Your task to perform on an android device: choose inbox layout in the gmail app Image 0: 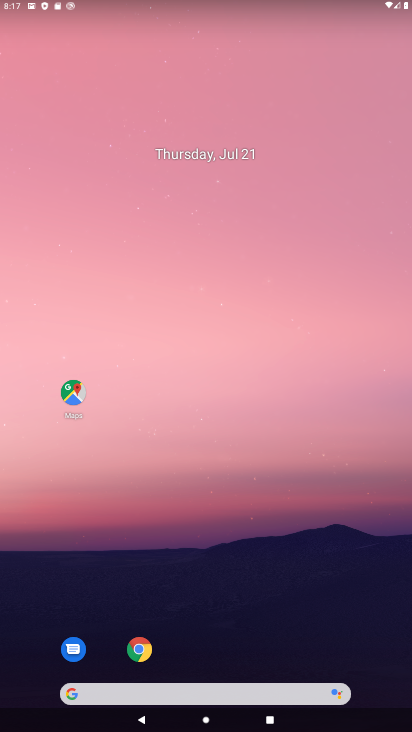
Step 0: drag from (314, 631) to (319, 107)
Your task to perform on an android device: choose inbox layout in the gmail app Image 1: 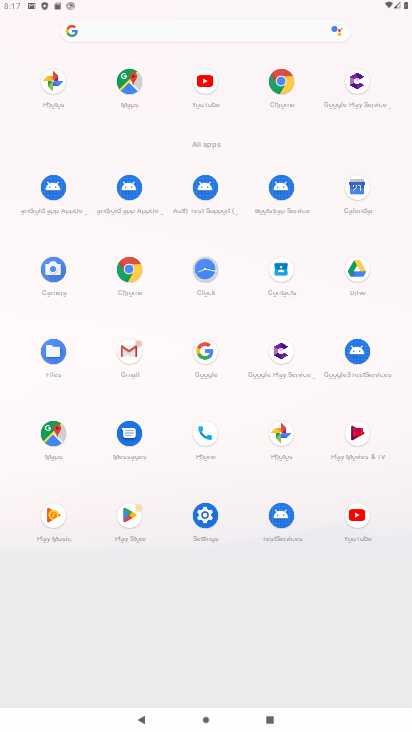
Step 1: click (125, 352)
Your task to perform on an android device: choose inbox layout in the gmail app Image 2: 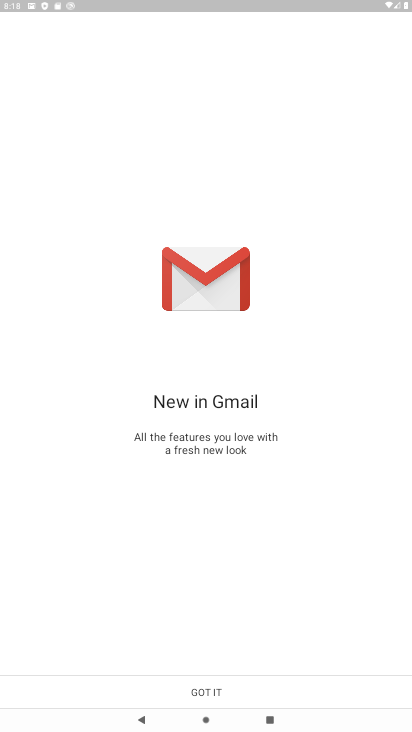
Step 2: click (195, 695)
Your task to perform on an android device: choose inbox layout in the gmail app Image 3: 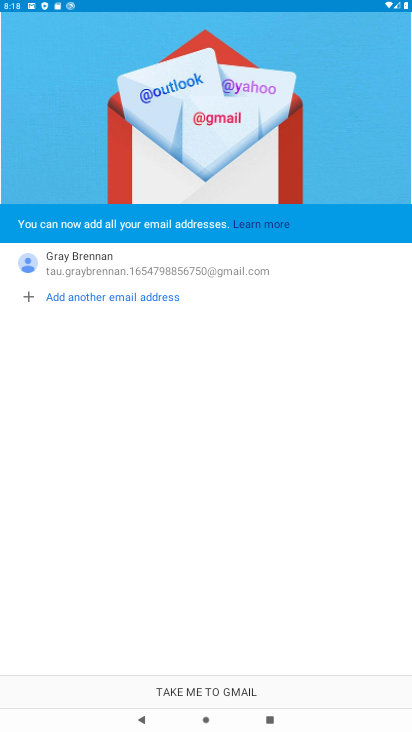
Step 3: click (184, 688)
Your task to perform on an android device: choose inbox layout in the gmail app Image 4: 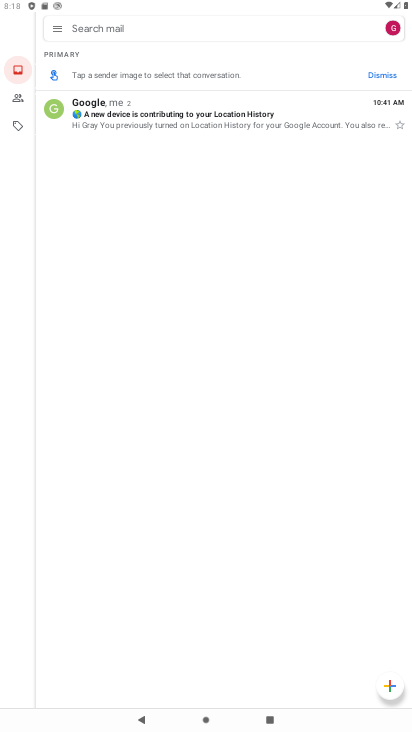
Step 4: click (56, 25)
Your task to perform on an android device: choose inbox layout in the gmail app Image 5: 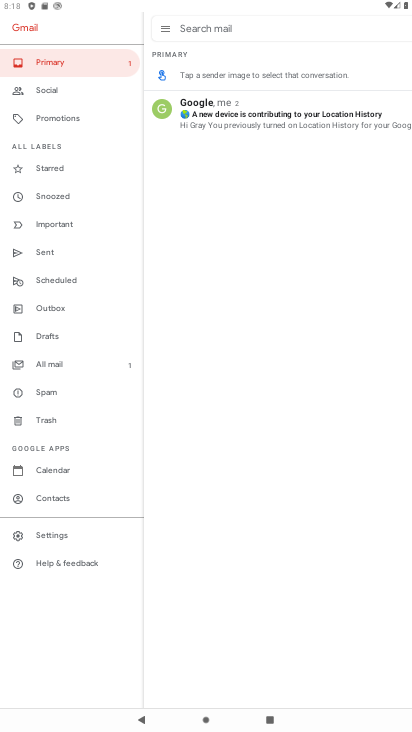
Step 5: click (39, 538)
Your task to perform on an android device: choose inbox layout in the gmail app Image 6: 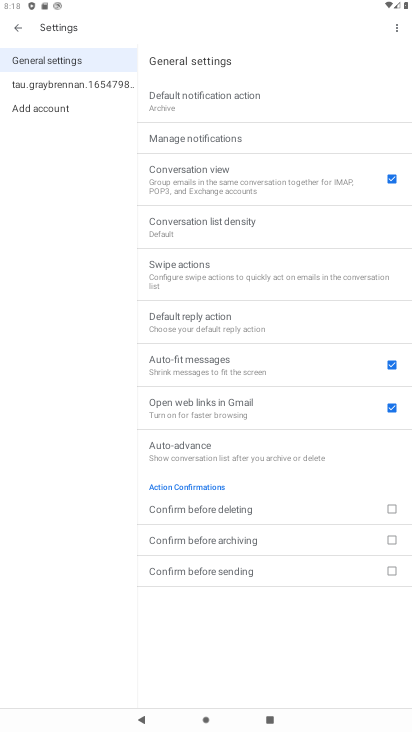
Step 6: click (110, 81)
Your task to perform on an android device: choose inbox layout in the gmail app Image 7: 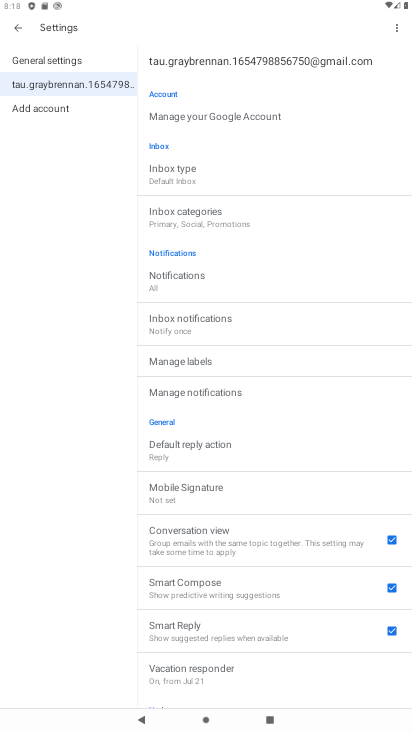
Step 7: click (242, 178)
Your task to perform on an android device: choose inbox layout in the gmail app Image 8: 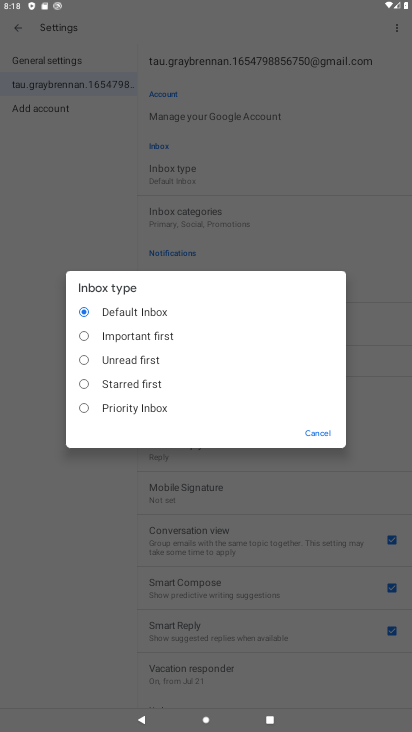
Step 8: click (159, 330)
Your task to perform on an android device: choose inbox layout in the gmail app Image 9: 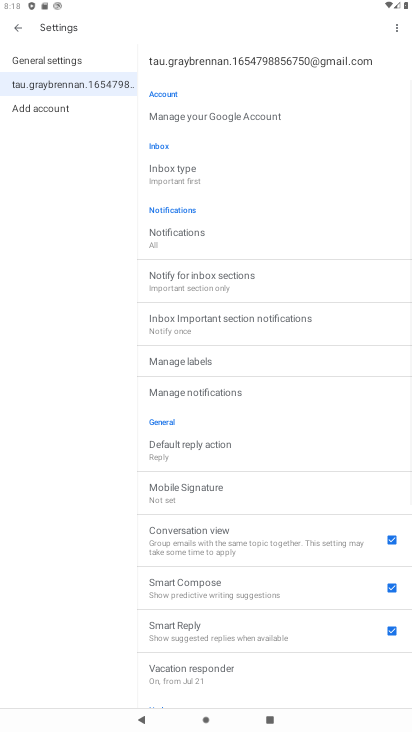
Step 9: task complete